Your task to perform on an android device: add a label to a message in the gmail app Image 0: 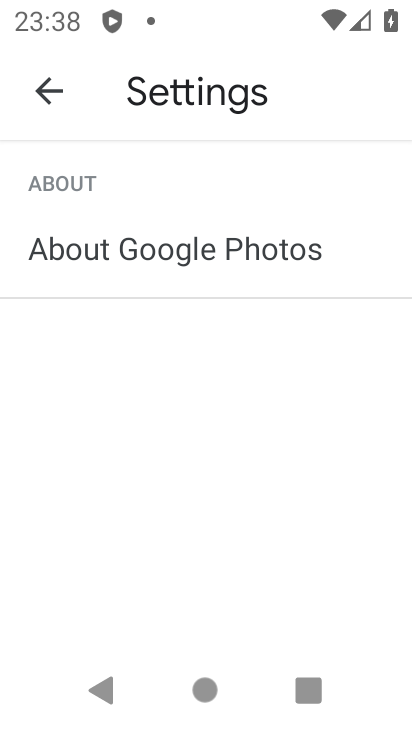
Step 0: press home button
Your task to perform on an android device: add a label to a message in the gmail app Image 1: 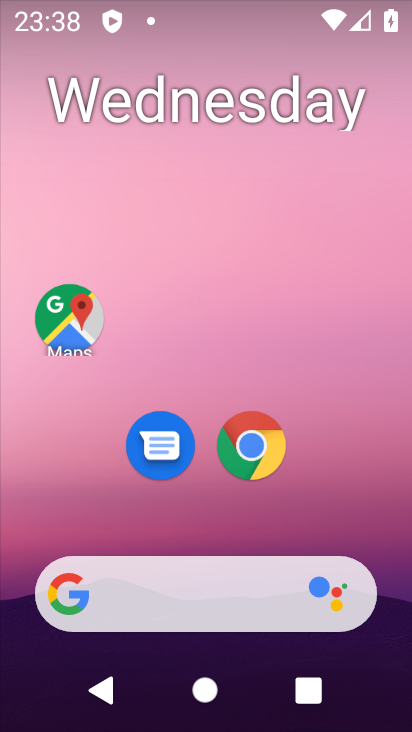
Step 1: drag from (192, 453) to (250, 29)
Your task to perform on an android device: add a label to a message in the gmail app Image 2: 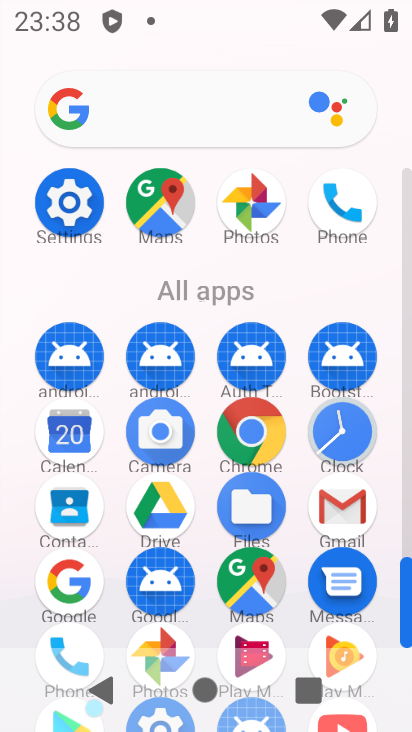
Step 2: click (346, 501)
Your task to perform on an android device: add a label to a message in the gmail app Image 3: 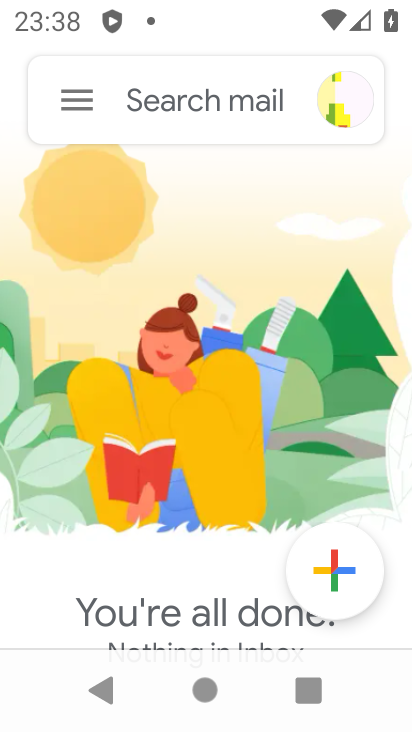
Step 3: click (78, 95)
Your task to perform on an android device: add a label to a message in the gmail app Image 4: 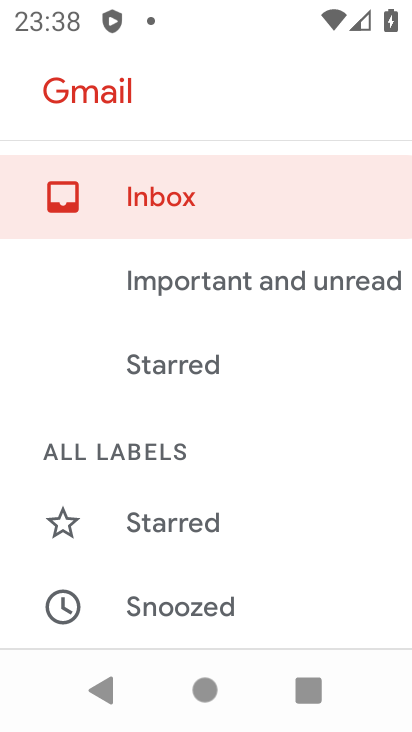
Step 4: drag from (172, 586) to (274, 71)
Your task to perform on an android device: add a label to a message in the gmail app Image 5: 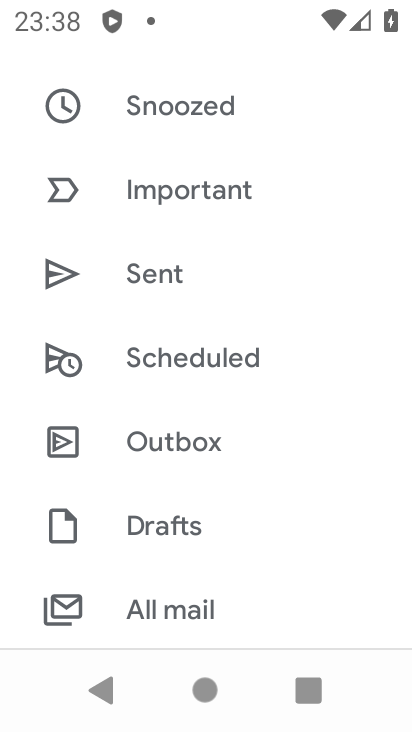
Step 5: click (176, 597)
Your task to perform on an android device: add a label to a message in the gmail app Image 6: 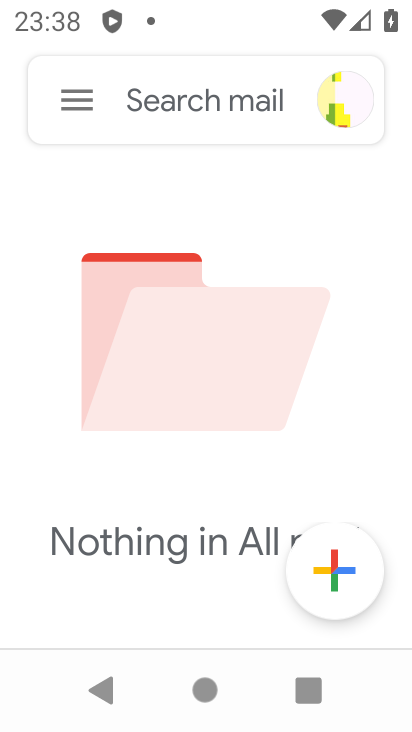
Step 6: click (74, 103)
Your task to perform on an android device: add a label to a message in the gmail app Image 7: 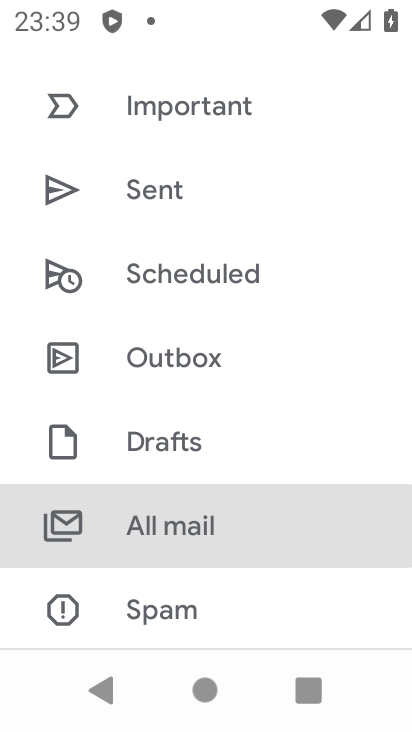
Step 7: drag from (201, 160) to (168, 622)
Your task to perform on an android device: add a label to a message in the gmail app Image 8: 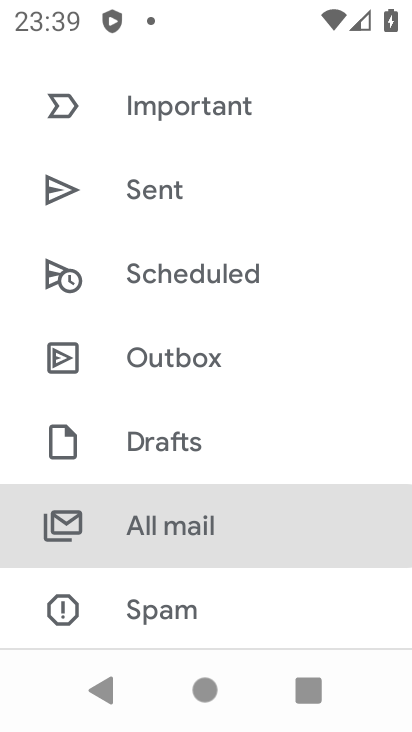
Step 8: click (189, 521)
Your task to perform on an android device: add a label to a message in the gmail app Image 9: 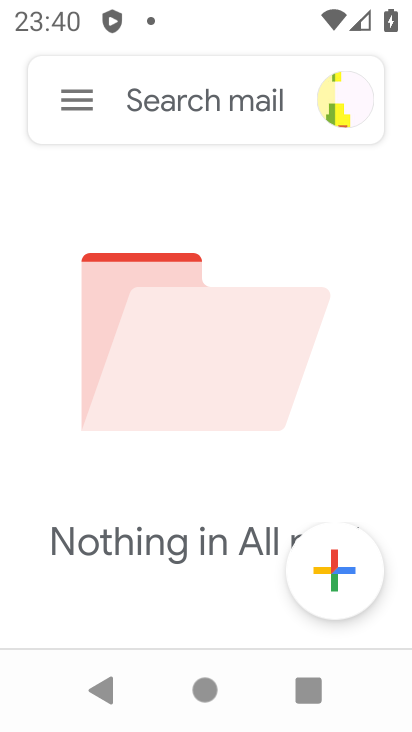
Step 9: task complete